Your task to perform on an android device: refresh tabs in the chrome app Image 0: 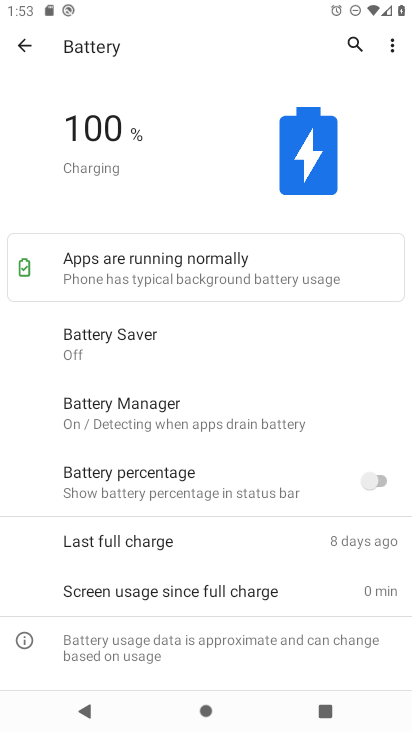
Step 0: press home button
Your task to perform on an android device: refresh tabs in the chrome app Image 1: 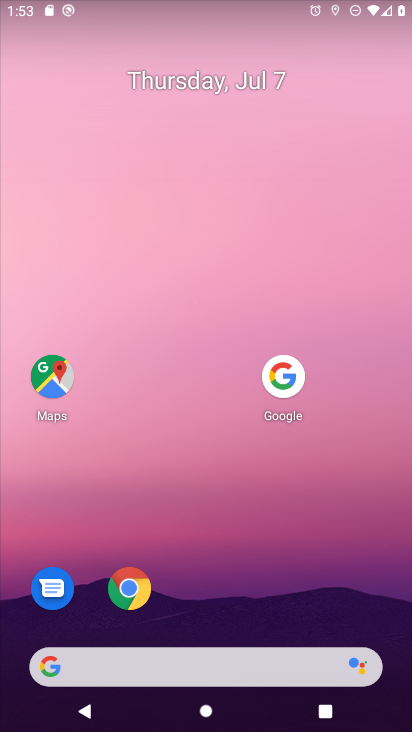
Step 1: click (129, 588)
Your task to perform on an android device: refresh tabs in the chrome app Image 2: 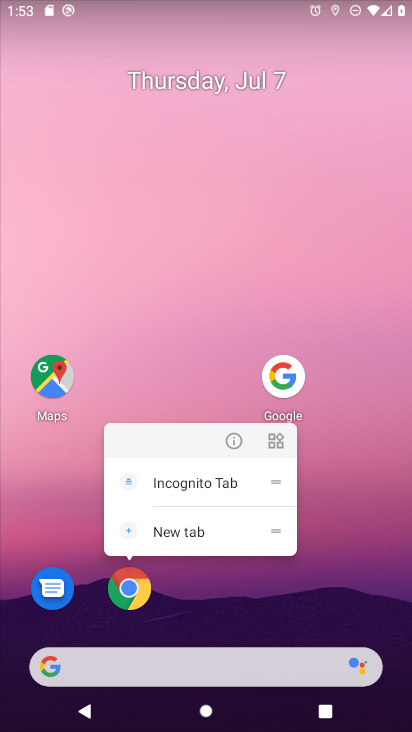
Step 2: click (129, 589)
Your task to perform on an android device: refresh tabs in the chrome app Image 3: 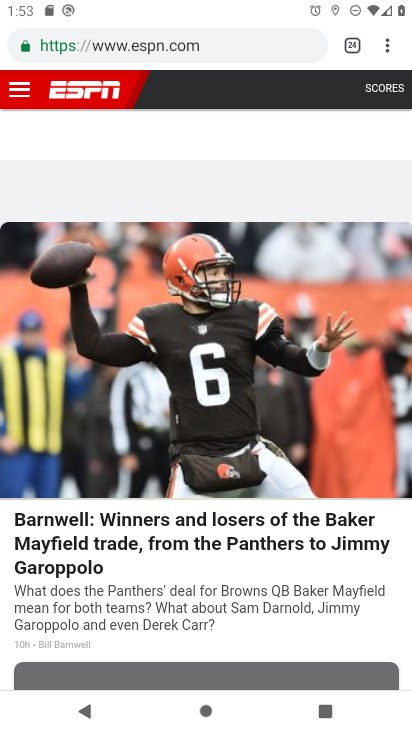
Step 3: click (385, 61)
Your task to perform on an android device: refresh tabs in the chrome app Image 4: 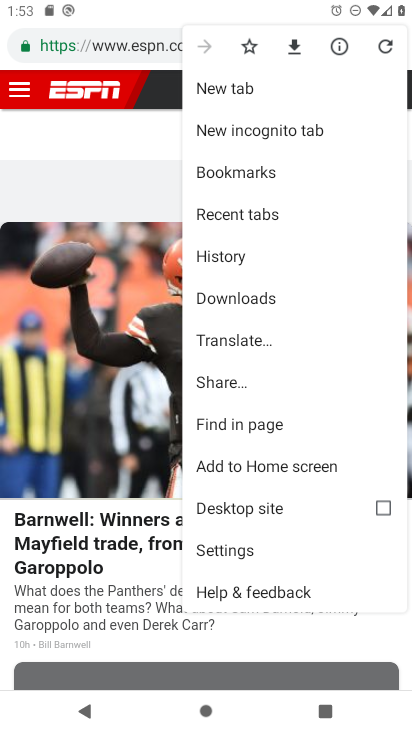
Step 4: click (385, 48)
Your task to perform on an android device: refresh tabs in the chrome app Image 5: 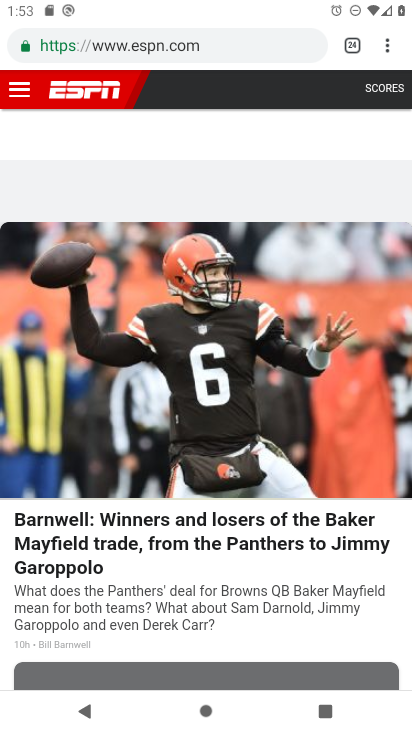
Step 5: task complete